Your task to perform on an android device: What's the weather? Image 0: 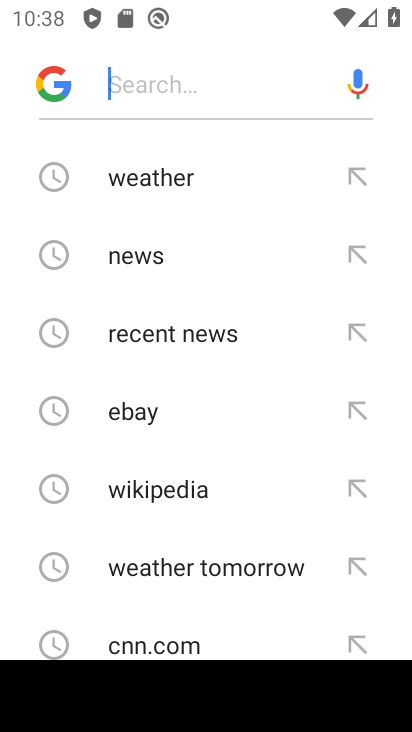
Step 0: click (135, 176)
Your task to perform on an android device: What's the weather? Image 1: 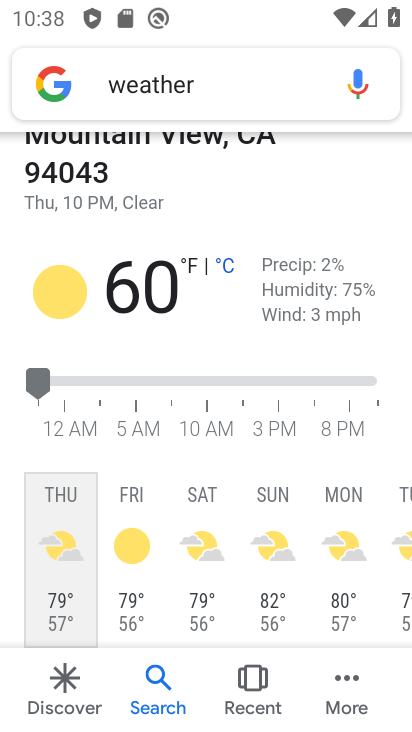
Step 1: task complete